Your task to perform on an android device: change the clock display to digital Image 0: 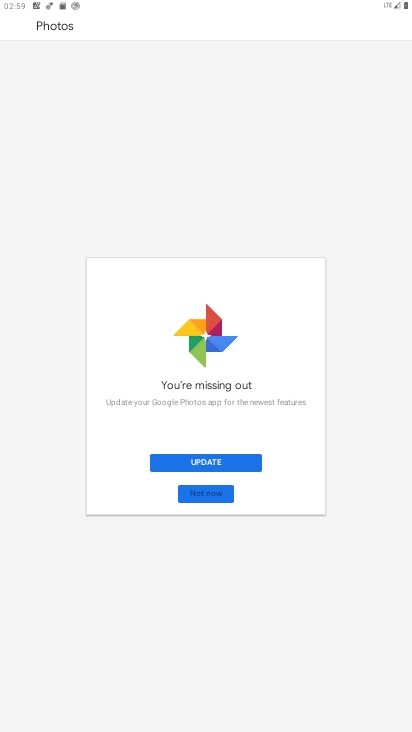
Step 0: press home button
Your task to perform on an android device: change the clock display to digital Image 1: 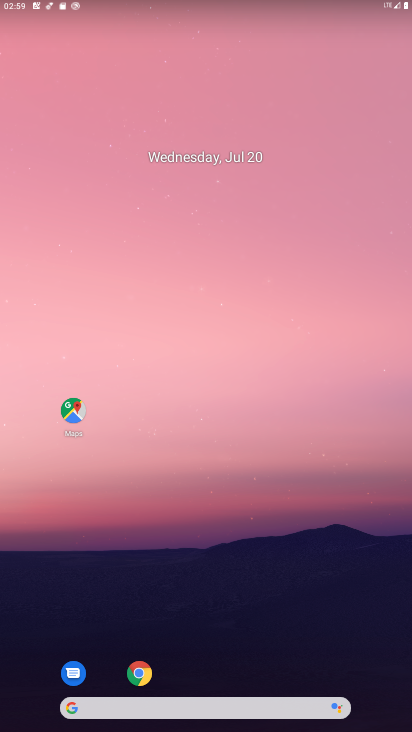
Step 1: drag from (254, 631) to (247, 110)
Your task to perform on an android device: change the clock display to digital Image 2: 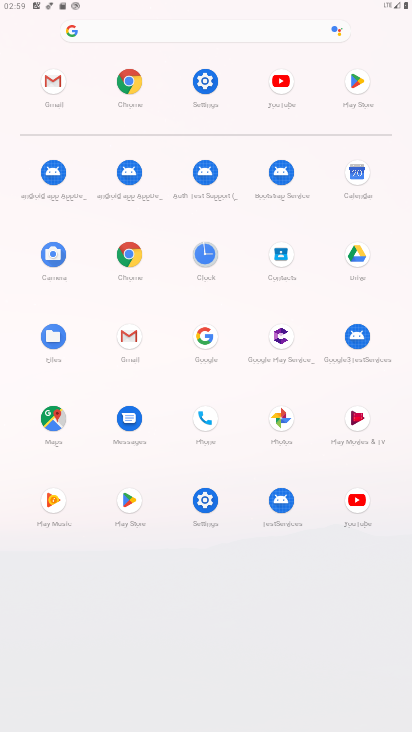
Step 2: click (193, 259)
Your task to perform on an android device: change the clock display to digital Image 3: 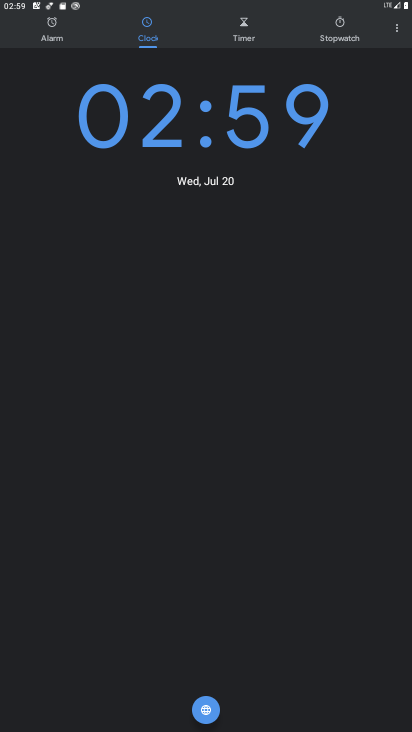
Step 3: click (391, 31)
Your task to perform on an android device: change the clock display to digital Image 4: 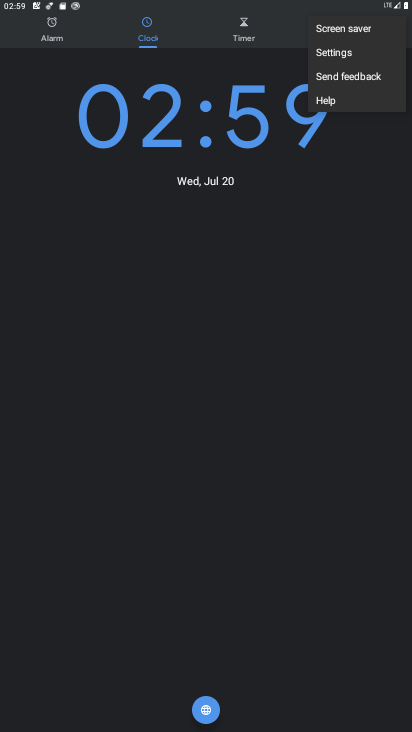
Step 4: click (329, 48)
Your task to perform on an android device: change the clock display to digital Image 5: 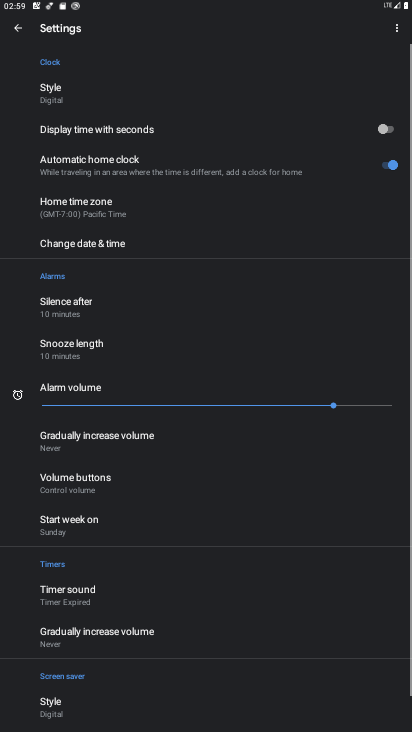
Step 5: click (54, 100)
Your task to perform on an android device: change the clock display to digital Image 6: 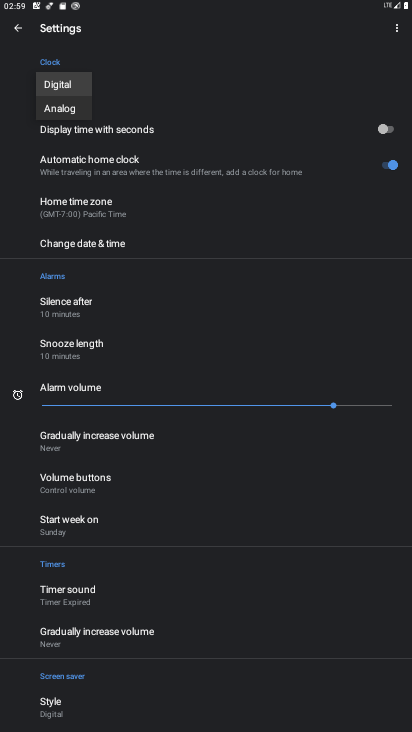
Step 6: click (68, 108)
Your task to perform on an android device: change the clock display to digital Image 7: 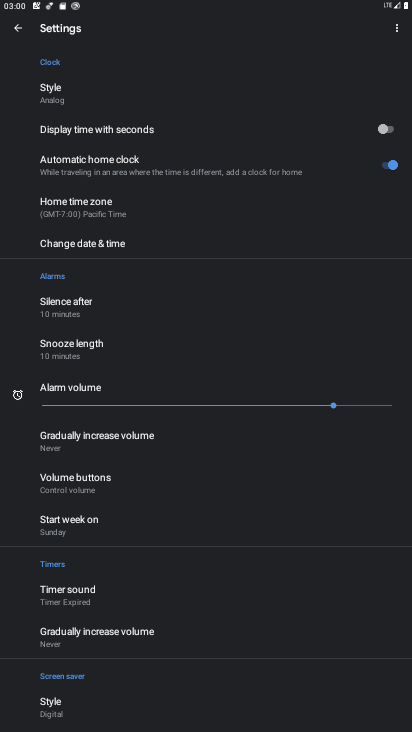
Step 7: task complete